Your task to perform on an android device: Find coffee shops on Maps Image 0: 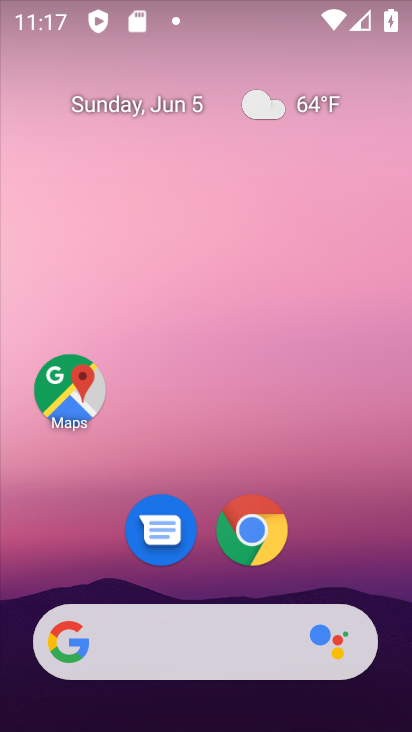
Step 0: drag from (361, 546) to (379, 59)
Your task to perform on an android device: Find coffee shops on Maps Image 1: 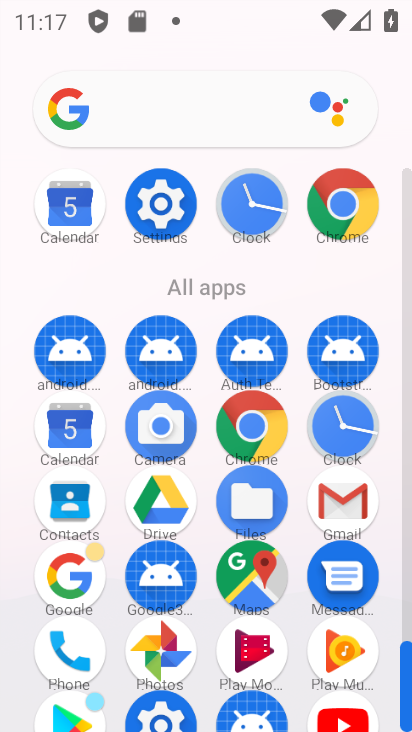
Step 1: click (248, 587)
Your task to perform on an android device: Find coffee shops on Maps Image 2: 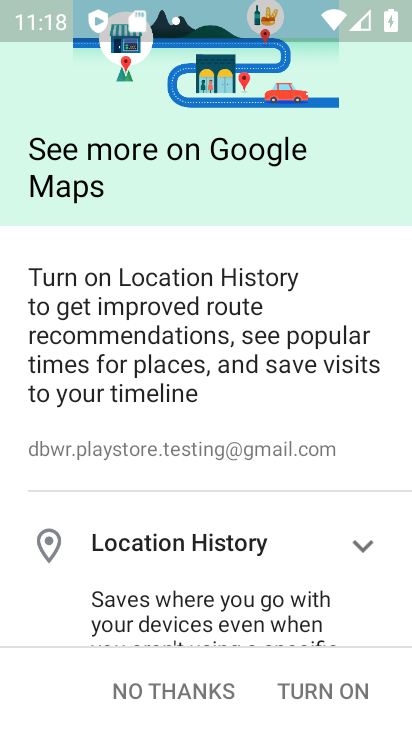
Step 2: click (152, 697)
Your task to perform on an android device: Find coffee shops on Maps Image 3: 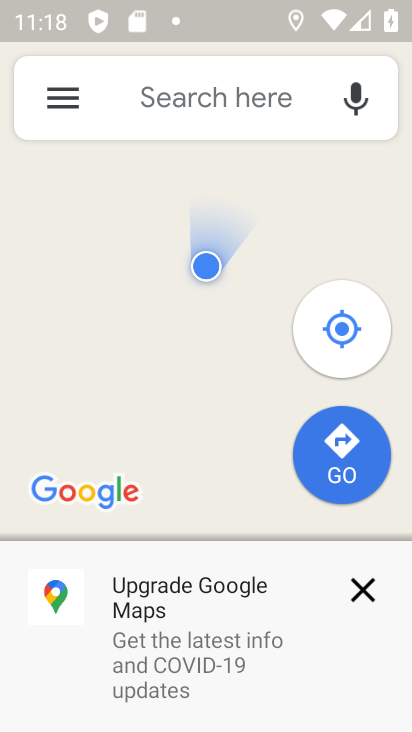
Step 3: click (213, 76)
Your task to perform on an android device: Find coffee shops on Maps Image 4: 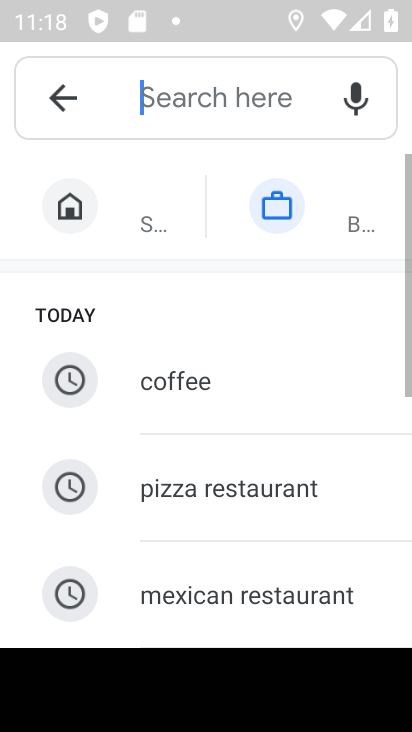
Step 4: click (146, 389)
Your task to perform on an android device: Find coffee shops on Maps Image 5: 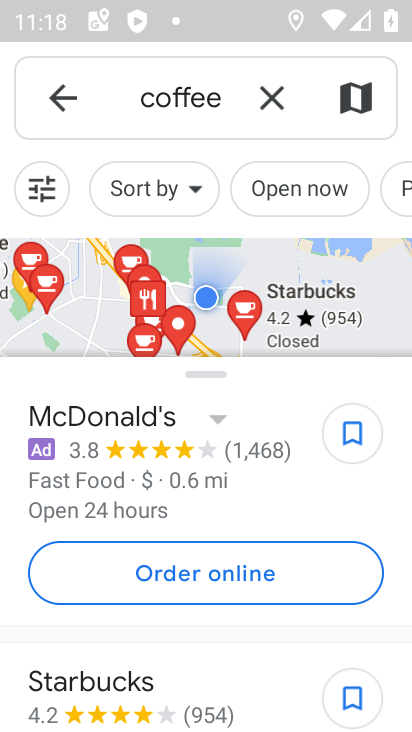
Step 5: task complete